Your task to perform on an android device: stop showing notifications on the lock screen Image 0: 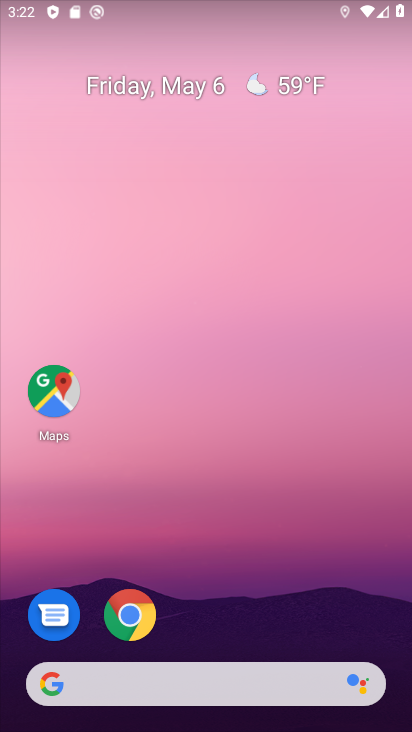
Step 0: drag from (350, 599) to (313, 49)
Your task to perform on an android device: stop showing notifications on the lock screen Image 1: 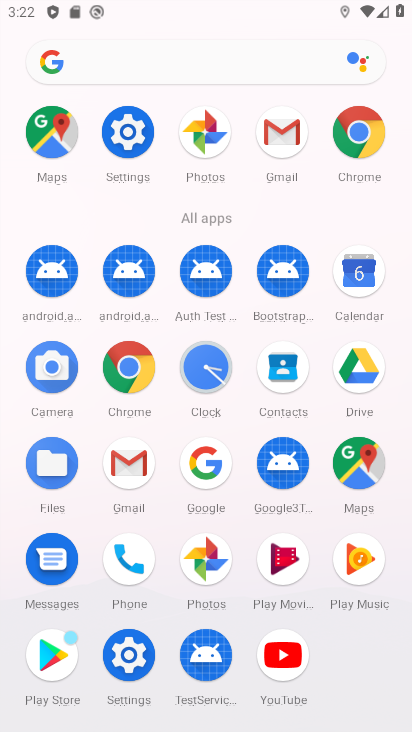
Step 1: click (133, 132)
Your task to perform on an android device: stop showing notifications on the lock screen Image 2: 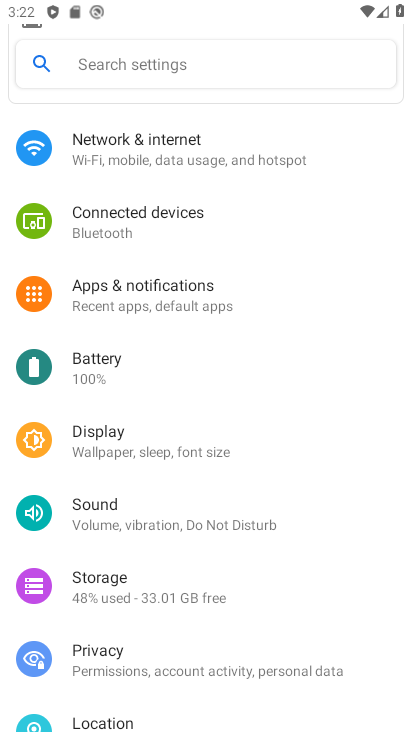
Step 2: click (124, 296)
Your task to perform on an android device: stop showing notifications on the lock screen Image 3: 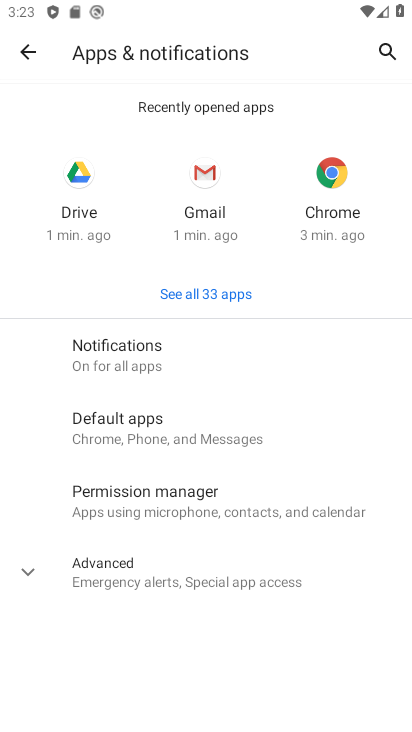
Step 3: click (84, 356)
Your task to perform on an android device: stop showing notifications on the lock screen Image 4: 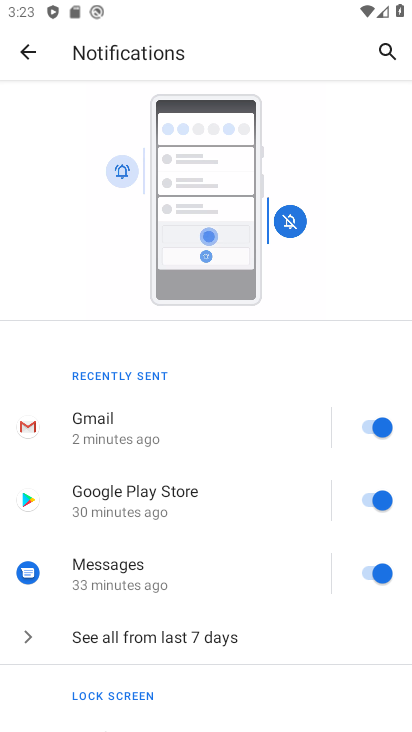
Step 4: drag from (177, 578) to (177, 198)
Your task to perform on an android device: stop showing notifications on the lock screen Image 5: 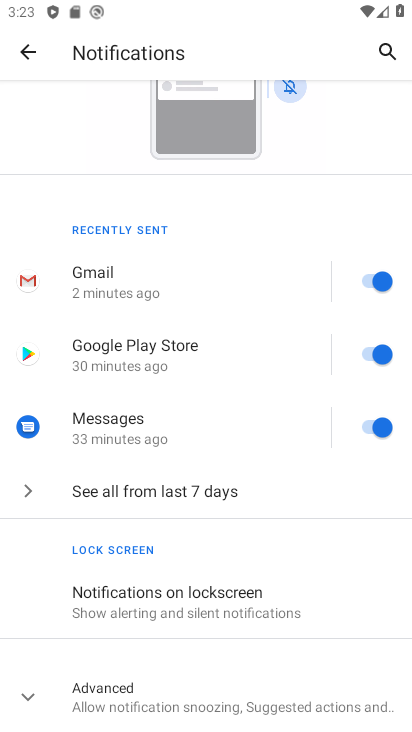
Step 5: click (127, 607)
Your task to perform on an android device: stop showing notifications on the lock screen Image 6: 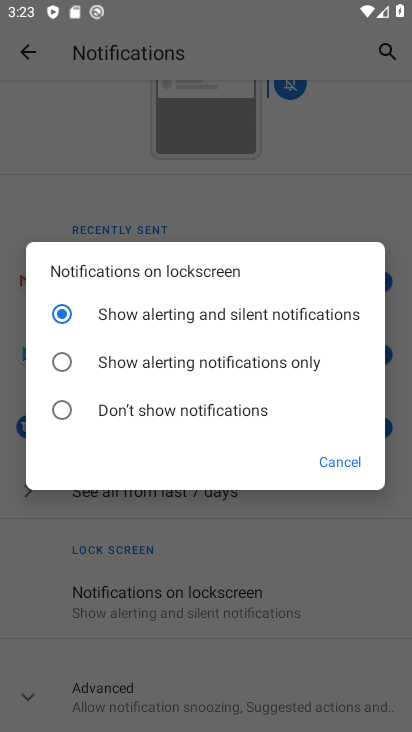
Step 6: click (59, 409)
Your task to perform on an android device: stop showing notifications on the lock screen Image 7: 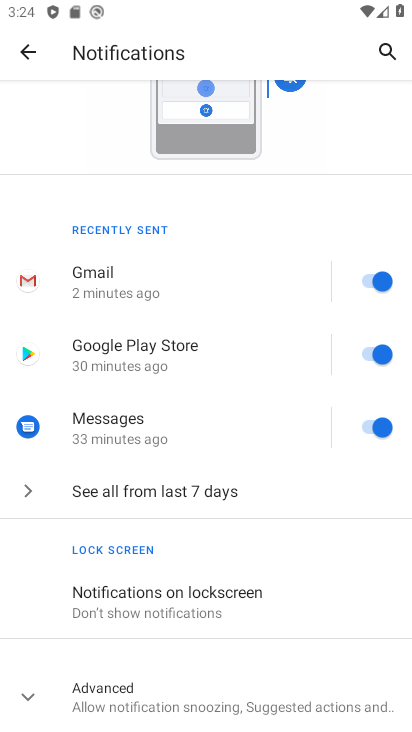
Step 7: task complete